Your task to perform on an android device: What's a good restaurant in Sacramento? Image 0: 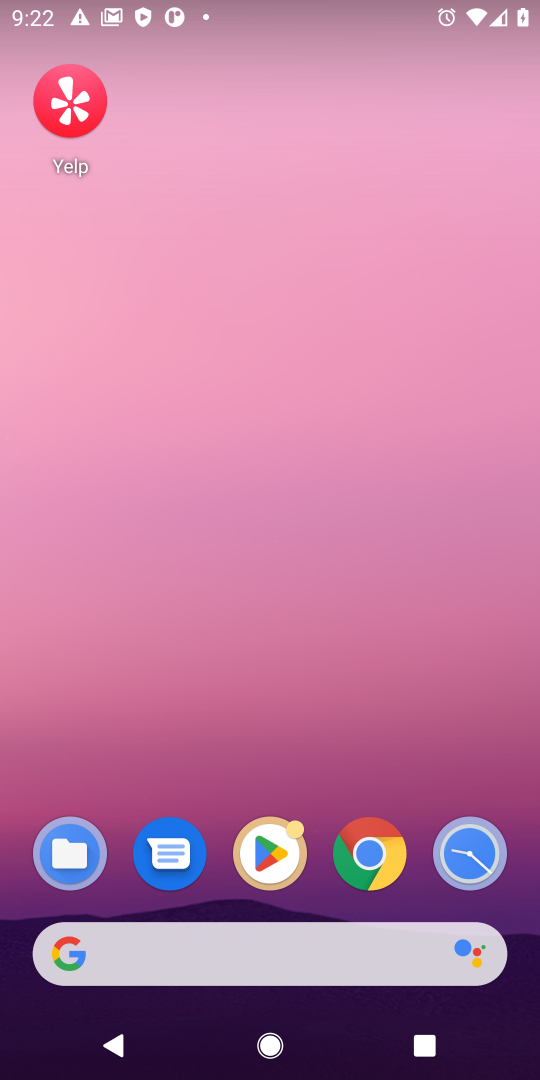
Step 0: press home button
Your task to perform on an android device: What's a good restaurant in Sacramento? Image 1: 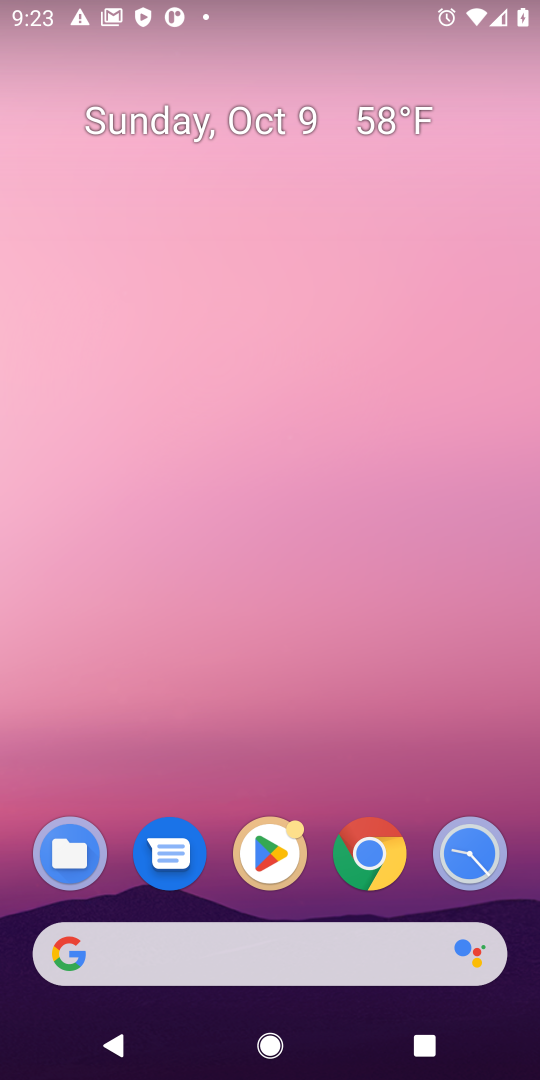
Step 1: click (537, 592)
Your task to perform on an android device: What's a good restaurant in Sacramento? Image 2: 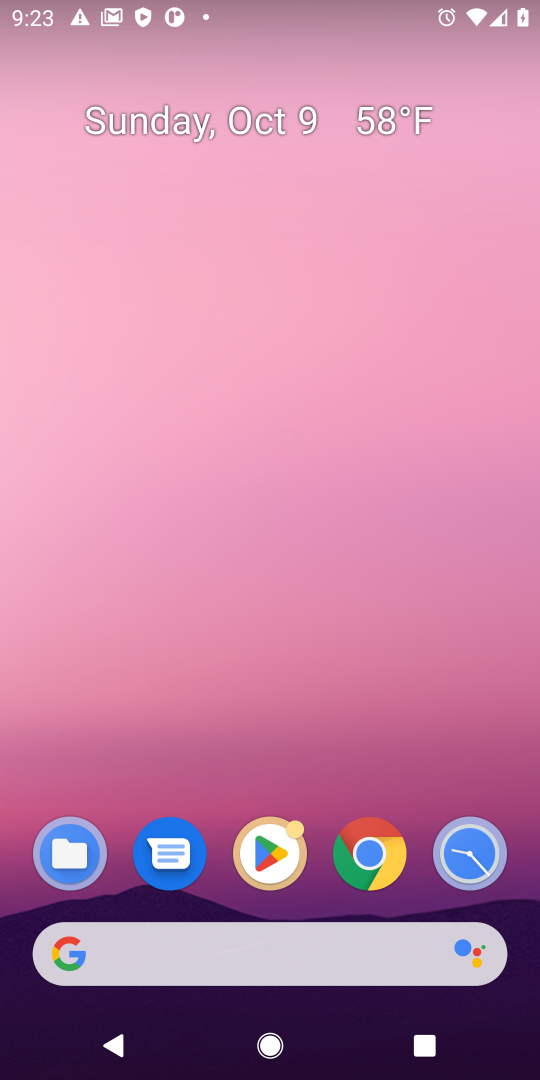
Step 2: click (389, 881)
Your task to perform on an android device: What's a good restaurant in Sacramento? Image 3: 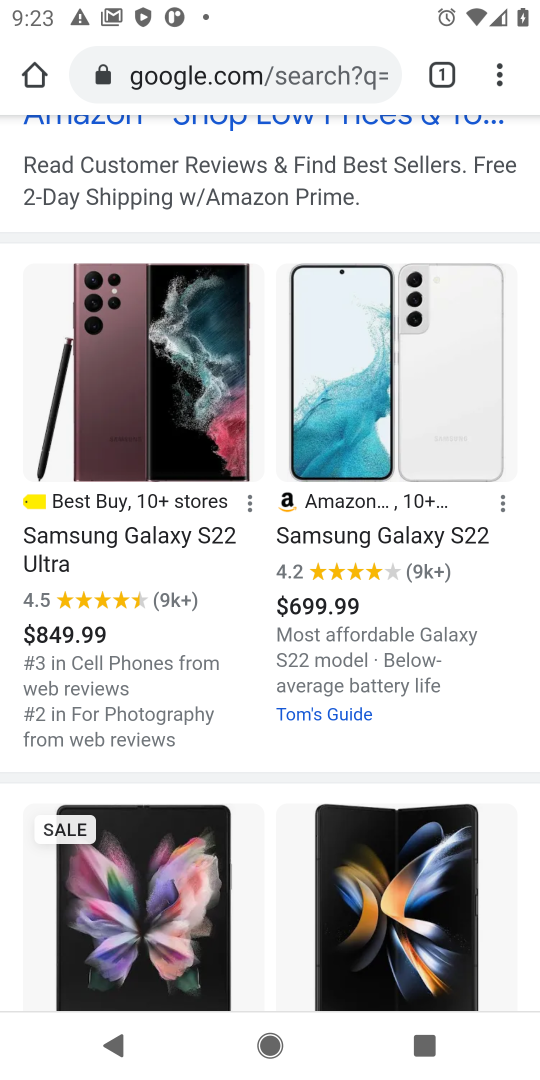
Step 3: click (242, 56)
Your task to perform on an android device: What's a good restaurant in Sacramento? Image 4: 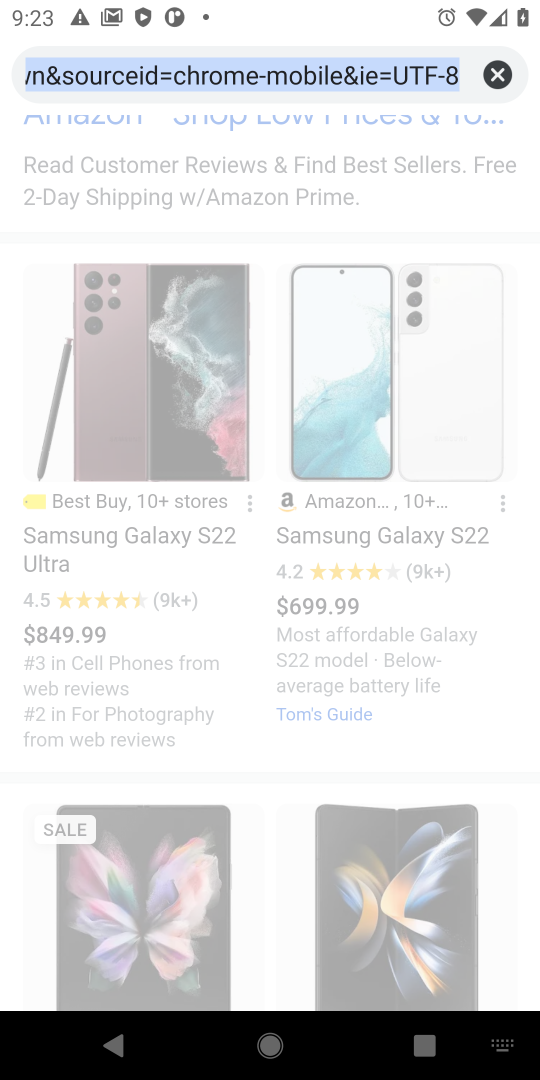
Step 4: type "good restaurant sacramento"
Your task to perform on an android device: What's a good restaurant in Sacramento? Image 5: 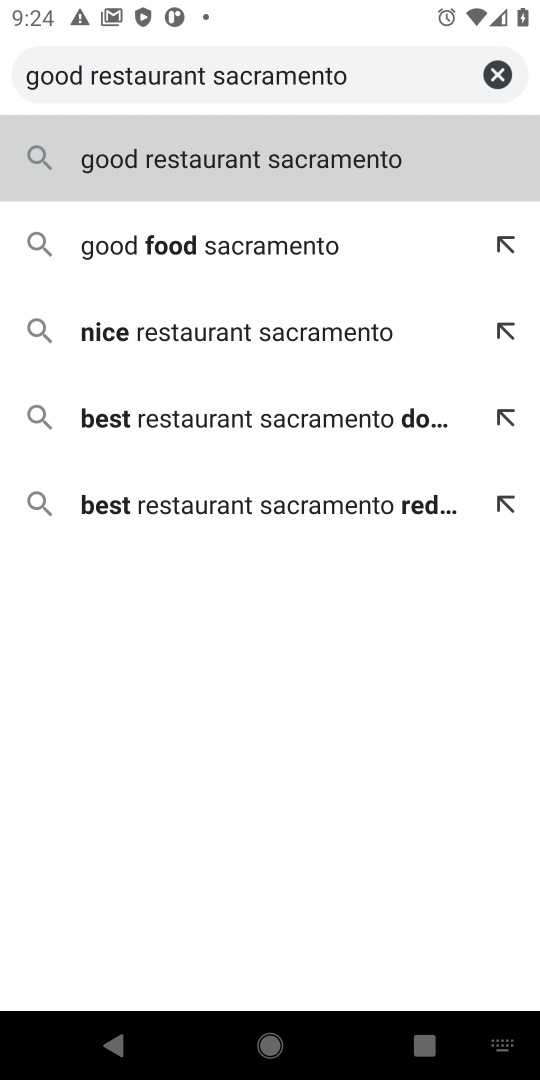
Step 5: click (298, 161)
Your task to perform on an android device: What's a good restaurant in Sacramento? Image 6: 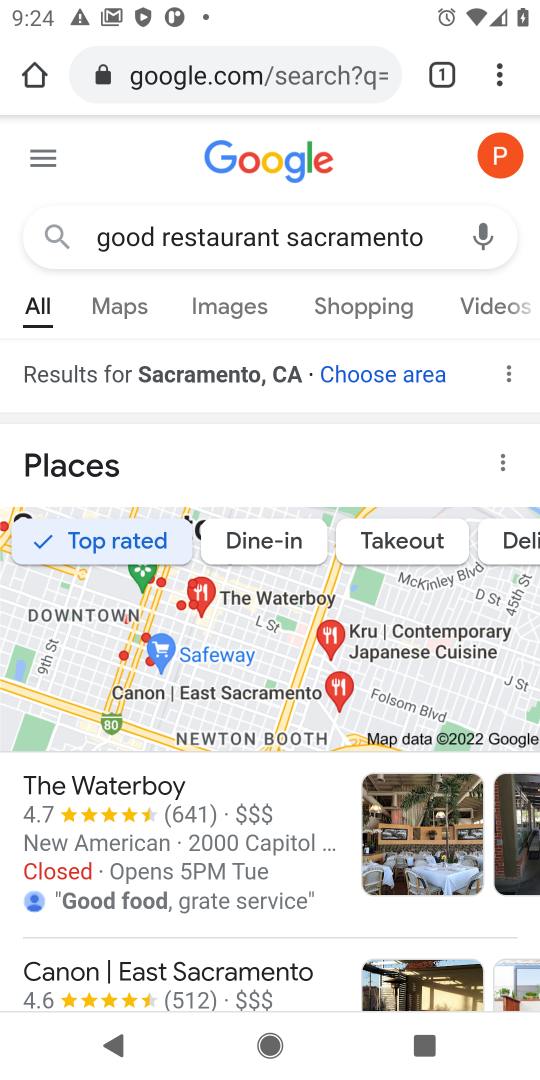
Step 6: task complete